Your task to perform on an android device: turn off location Image 0: 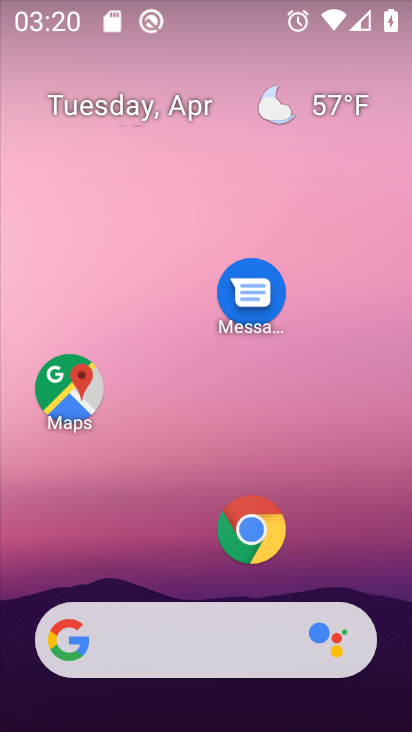
Step 0: drag from (183, 515) to (205, 108)
Your task to perform on an android device: turn off location Image 1: 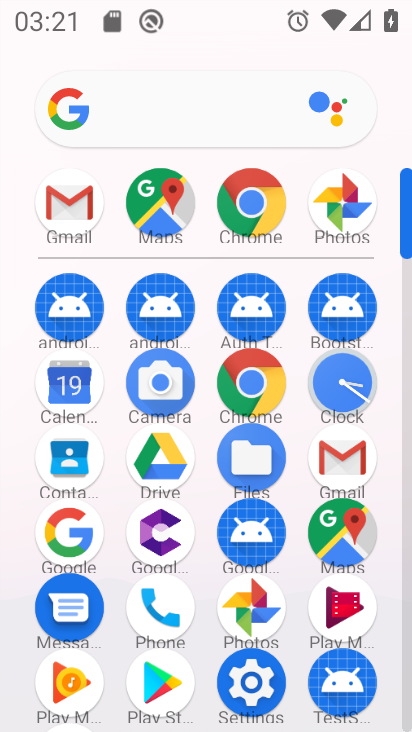
Step 1: drag from (200, 583) to (189, 423)
Your task to perform on an android device: turn off location Image 2: 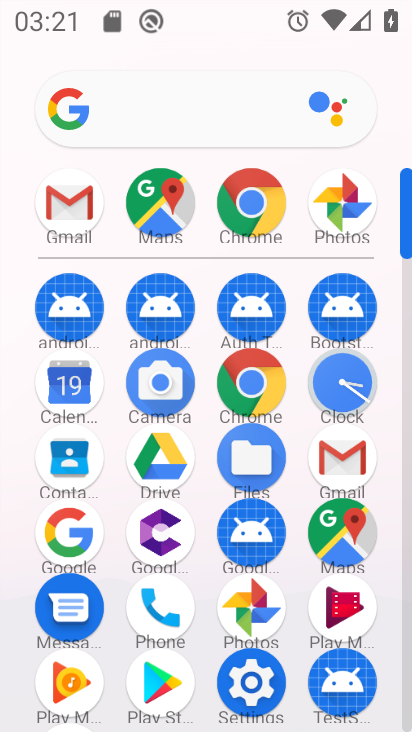
Step 2: click (251, 682)
Your task to perform on an android device: turn off location Image 3: 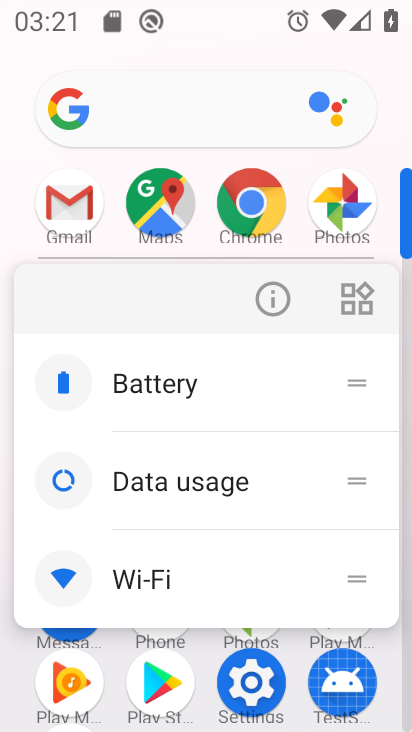
Step 3: click (254, 682)
Your task to perform on an android device: turn off location Image 4: 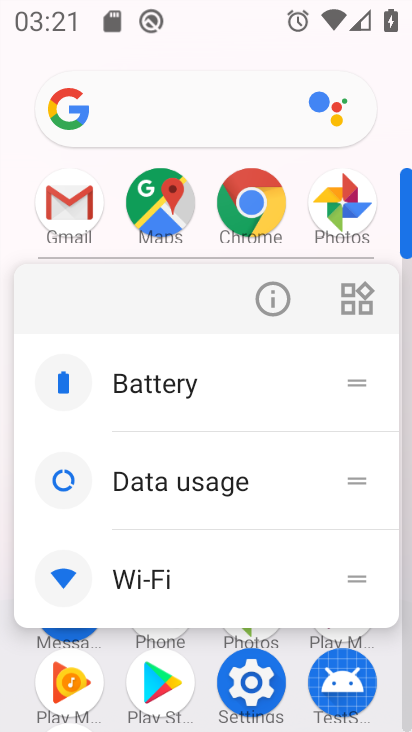
Step 4: click (254, 682)
Your task to perform on an android device: turn off location Image 5: 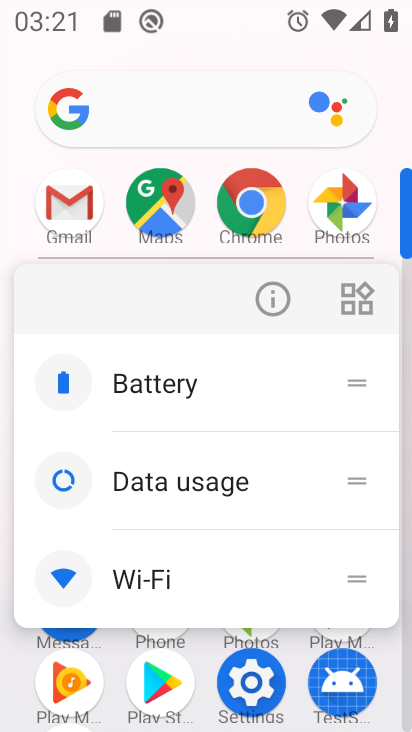
Step 5: click (252, 686)
Your task to perform on an android device: turn off location Image 6: 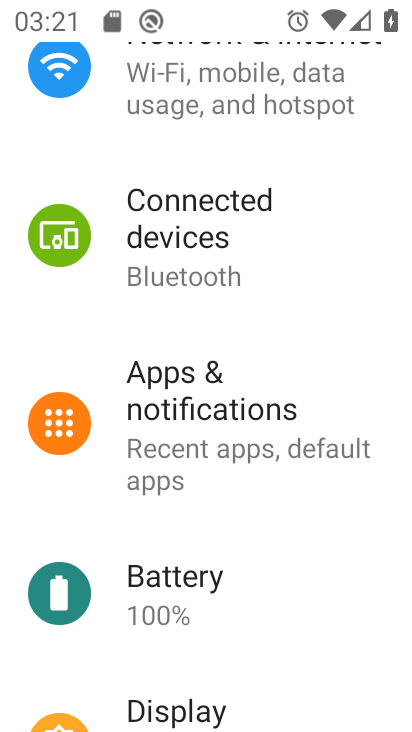
Step 6: drag from (284, 192) to (290, 78)
Your task to perform on an android device: turn off location Image 7: 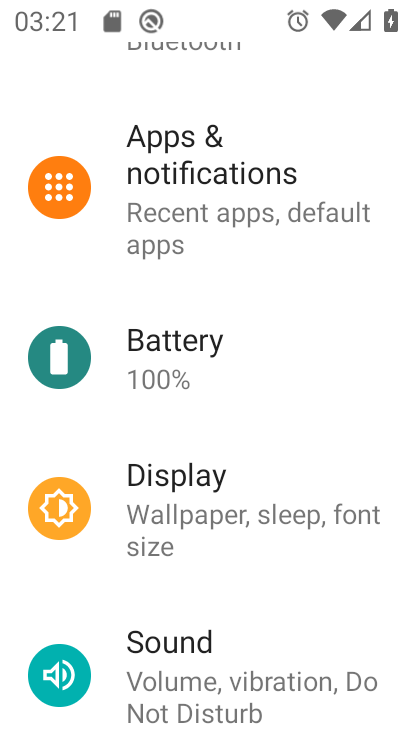
Step 7: drag from (238, 560) to (260, 99)
Your task to perform on an android device: turn off location Image 8: 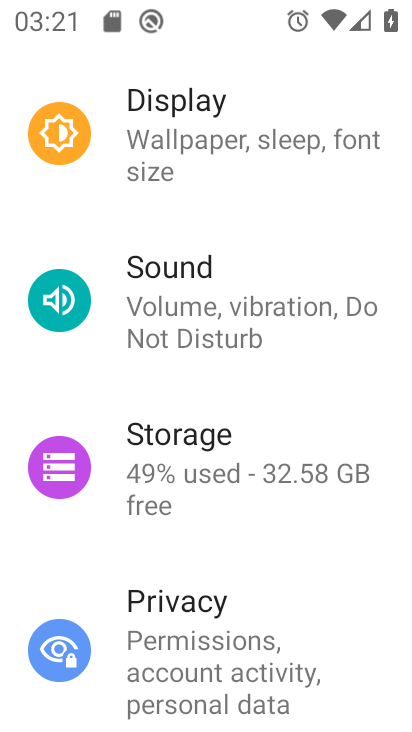
Step 8: drag from (242, 495) to (253, 190)
Your task to perform on an android device: turn off location Image 9: 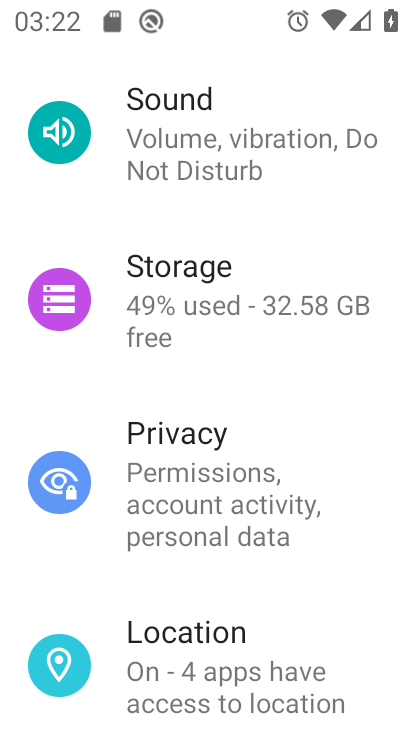
Step 9: click (174, 662)
Your task to perform on an android device: turn off location Image 10: 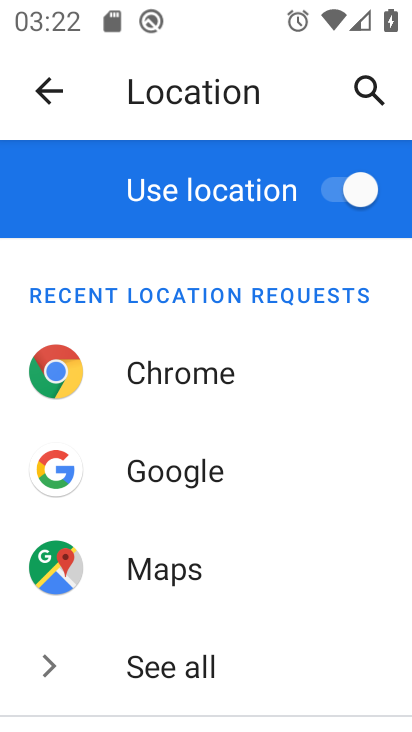
Step 10: click (342, 190)
Your task to perform on an android device: turn off location Image 11: 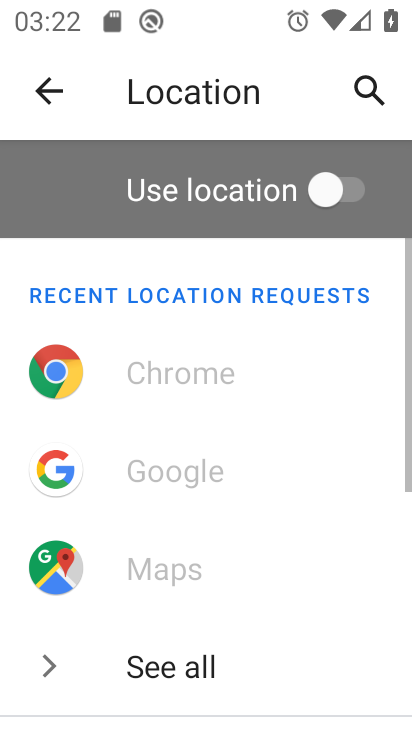
Step 11: task complete